Your task to perform on an android device: Open Youtube and go to the subscriptions tab Image 0: 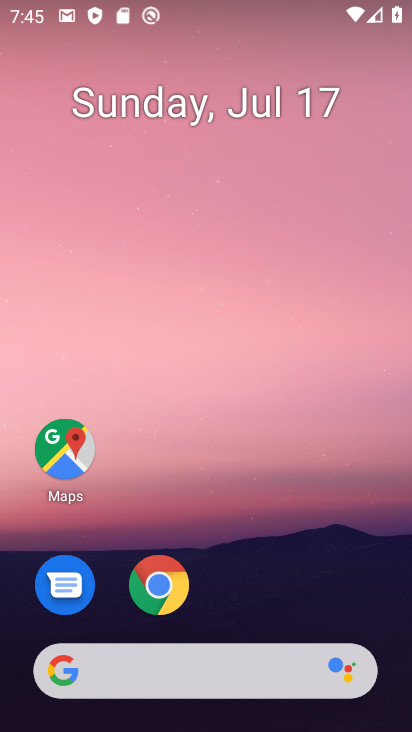
Step 0: drag from (230, 639) to (245, 325)
Your task to perform on an android device: Open Youtube and go to the subscriptions tab Image 1: 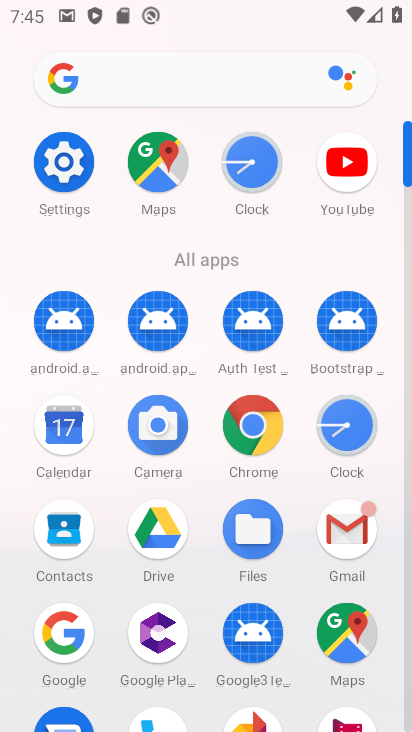
Step 1: click (335, 164)
Your task to perform on an android device: Open Youtube and go to the subscriptions tab Image 2: 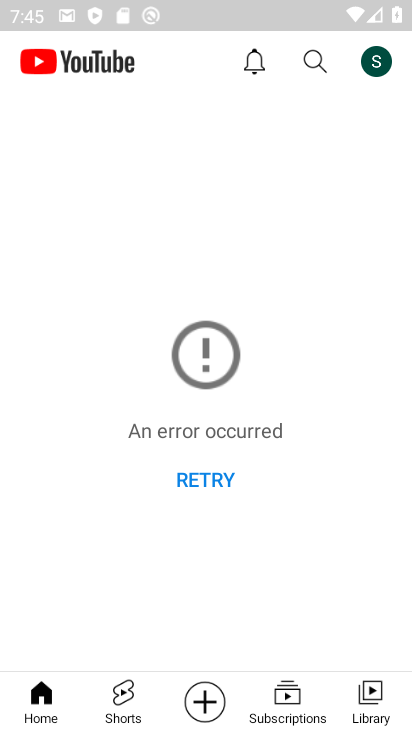
Step 2: click (219, 479)
Your task to perform on an android device: Open Youtube and go to the subscriptions tab Image 3: 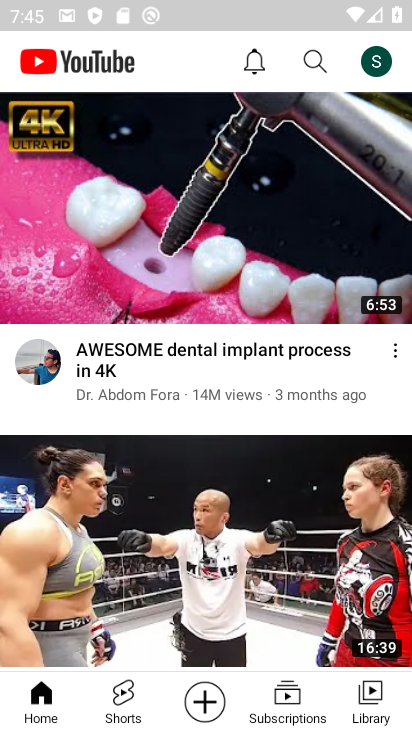
Step 3: click (267, 701)
Your task to perform on an android device: Open Youtube and go to the subscriptions tab Image 4: 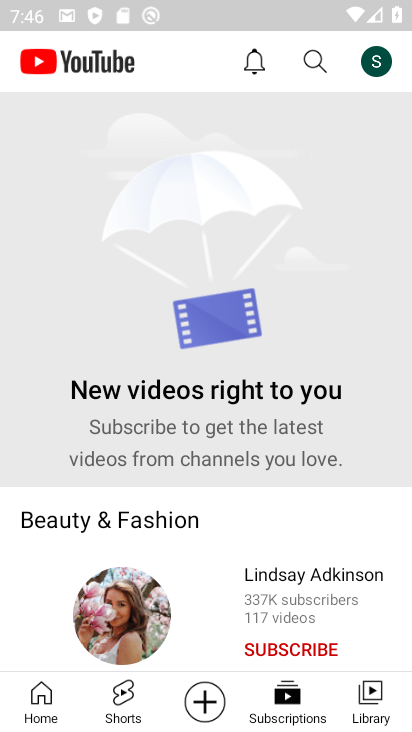
Step 4: task complete